Your task to perform on an android device: toggle improve location accuracy Image 0: 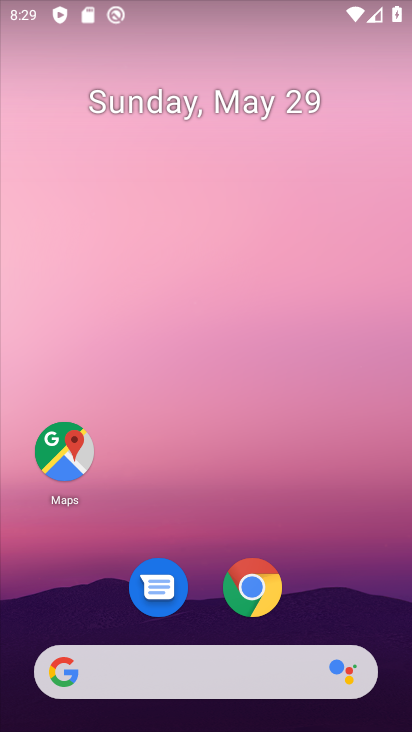
Step 0: drag from (216, 625) to (235, 167)
Your task to perform on an android device: toggle improve location accuracy Image 1: 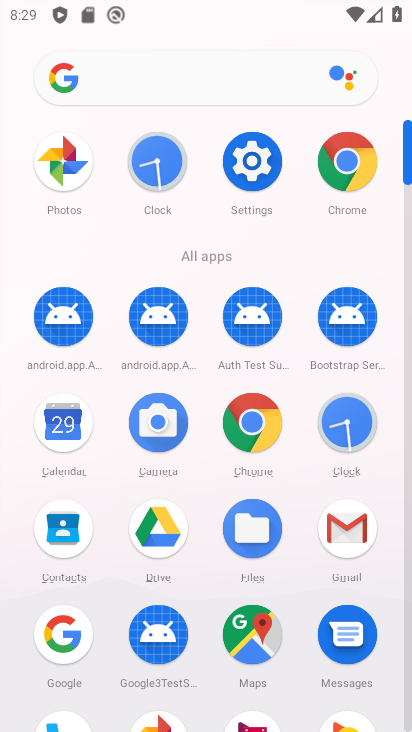
Step 1: click (263, 178)
Your task to perform on an android device: toggle improve location accuracy Image 2: 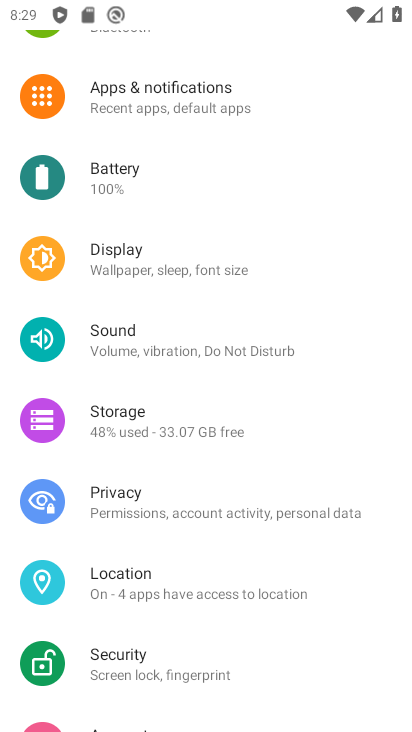
Step 2: click (102, 595)
Your task to perform on an android device: toggle improve location accuracy Image 3: 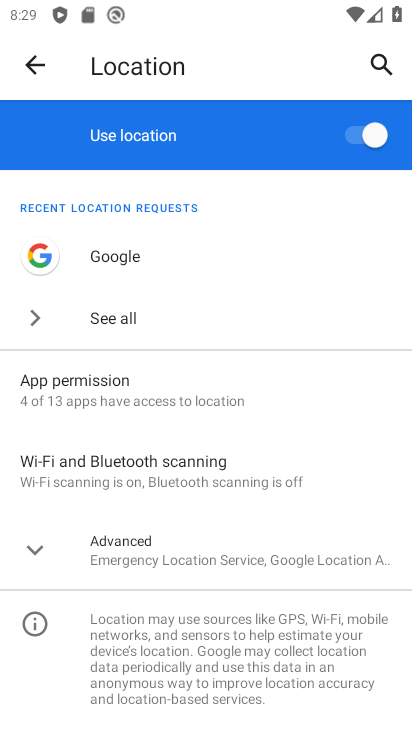
Step 3: click (134, 563)
Your task to perform on an android device: toggle improve location accuracy Image 4: 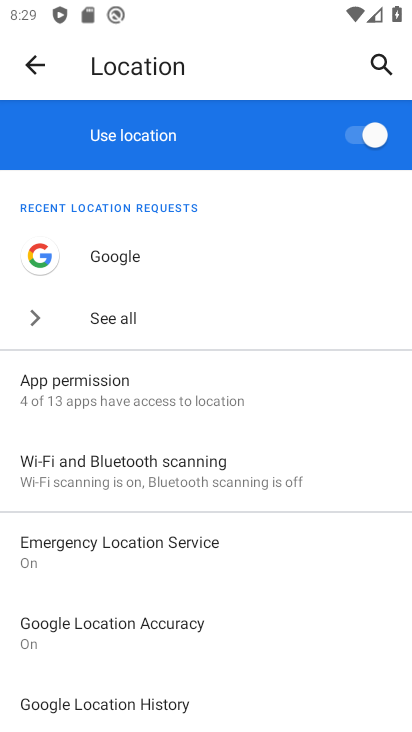
Step 4: click (154, 622)
Your task to perform on an android device: toggle improve location accuracy Image 5: 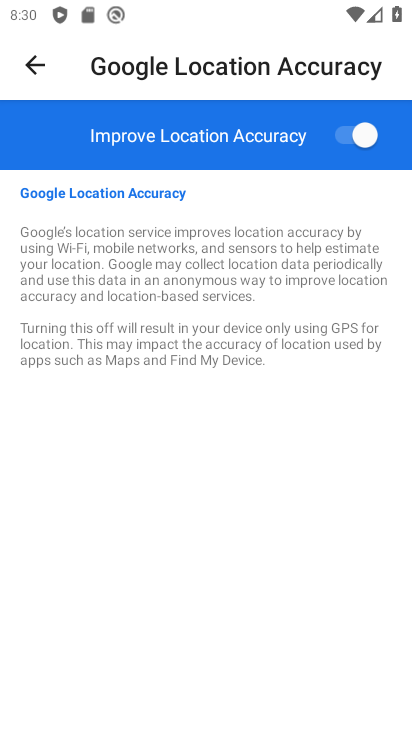
Step 5: click (350, 128)
Your task to perform on an android device: toggle improve location accuracy Image 6: 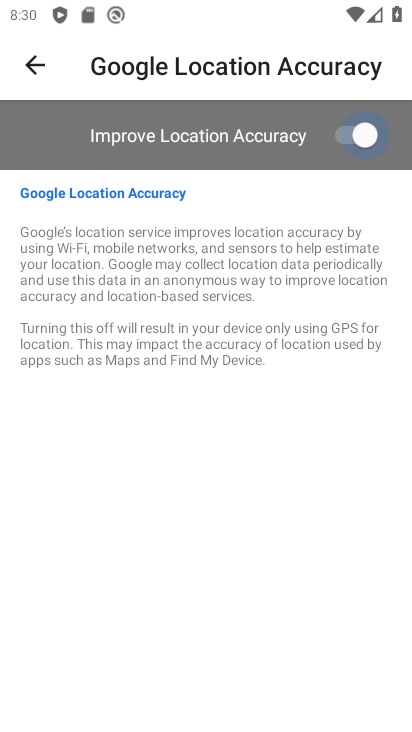
Step 6: click (350, 128)
Your task to perform on an android device: toggle improve location accuracy Image 7: 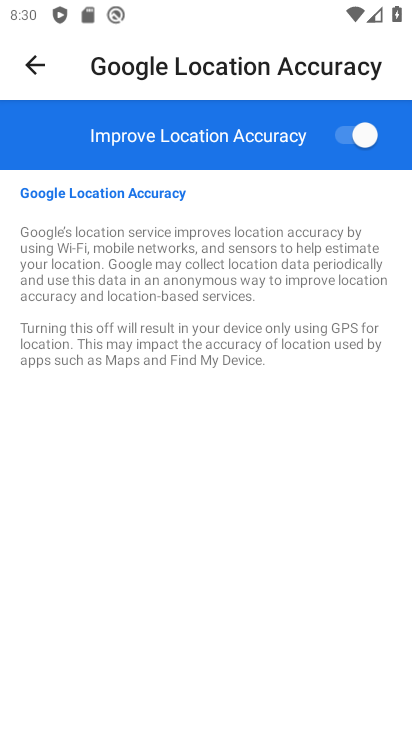
Step 7: task complete